Your task to perform on an android device: Open Google Maps and go to "Timeline" Image 0: 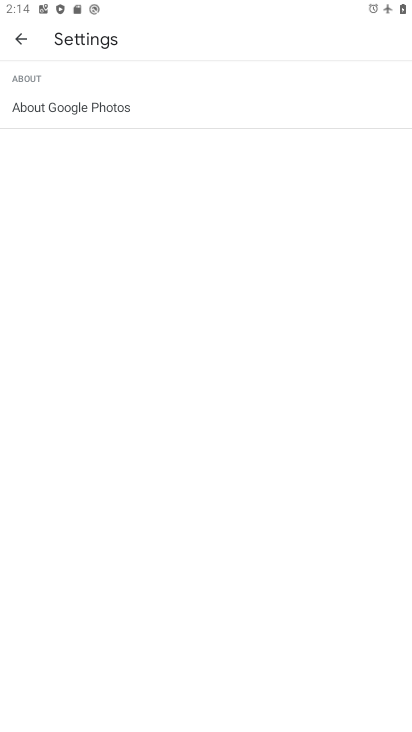
Step 0: press home button
Your task to perform on an android device: Open Google Maps and go to "Timeline" Image 1: 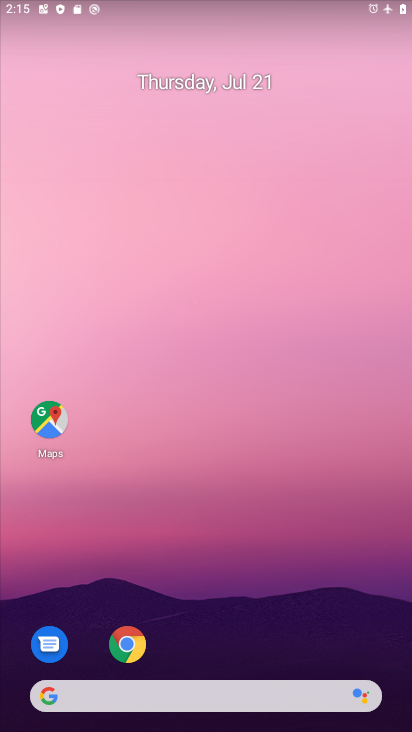
Step 1: click (46, 418)
Your task to perform on an android device: Open Google Maps and go to "Timeline" Image 2: 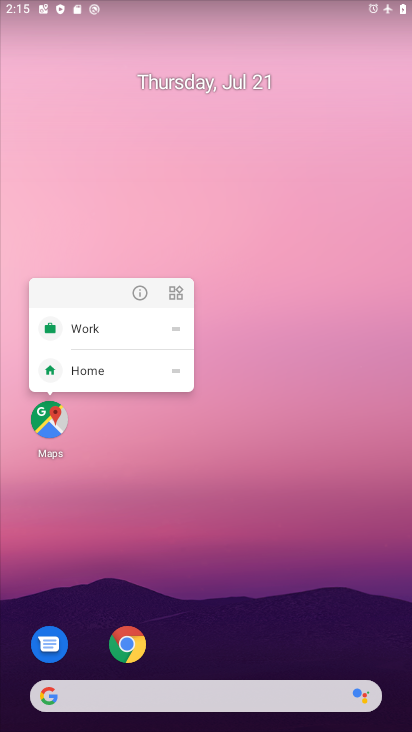
Step 2: click (46, 418)
Your task to perform on an android device: Open Google Maps and go to "Timeline" Image 3: 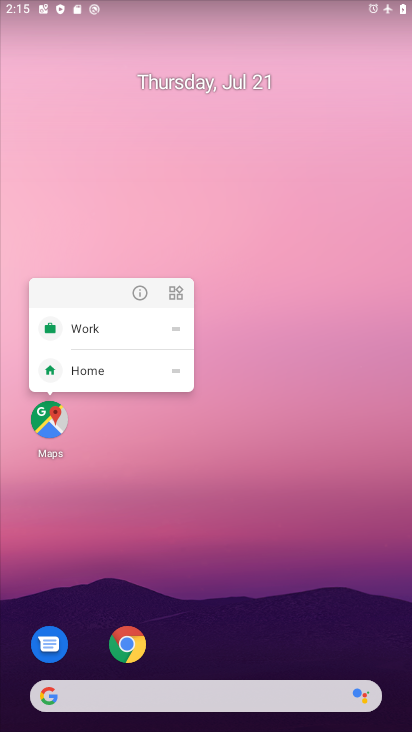
Step 3: click (58, 430)
Your task to perform on an android device: Open Google Maps and go to "Timeline" Image 4: 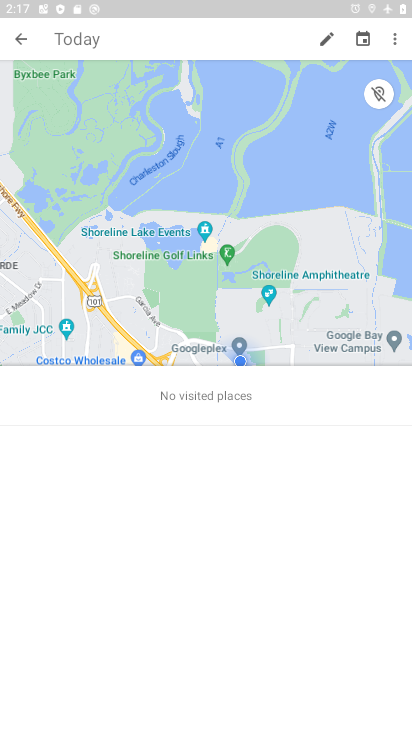
Step 4: task complete